Your task to perform on an android device: Go to Yahoo.com Image 0: 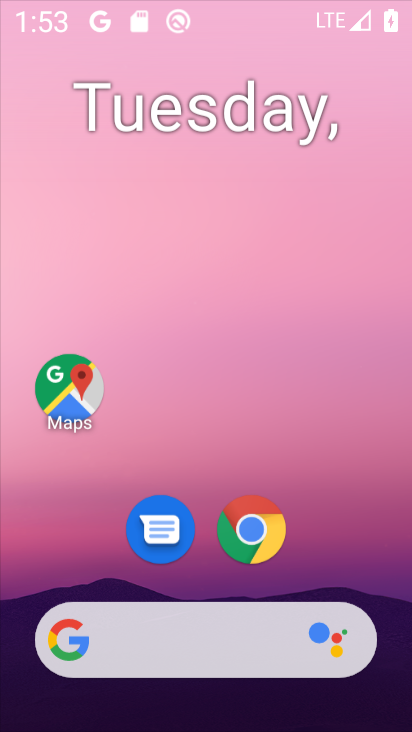
Step 0: click (264, 525)
Your task to perform on an android device: Go to Yahoo.com Image 1: 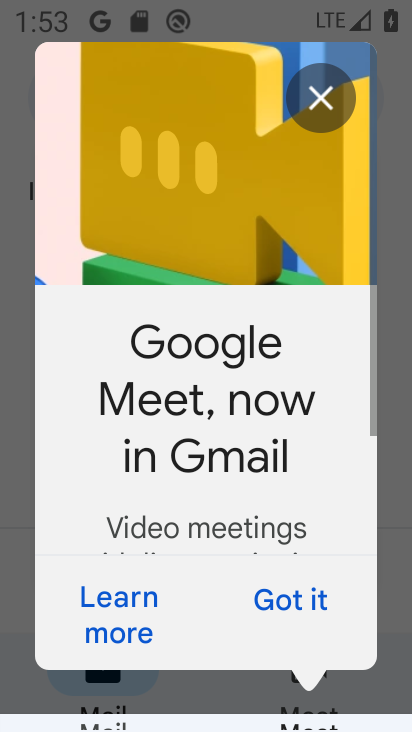
Step 1: press home button
Your task to perform on an android device: Go to Yahoo.com Image 2: 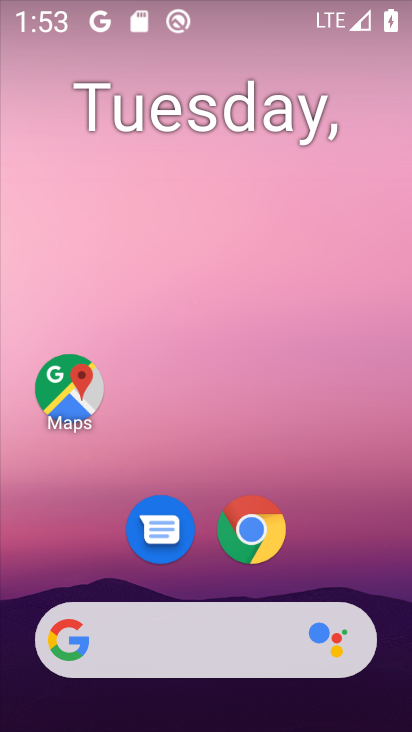
Step 2: click (260, 517)
Your task to perform on an android device: Go to Yahoo.com Image 3: 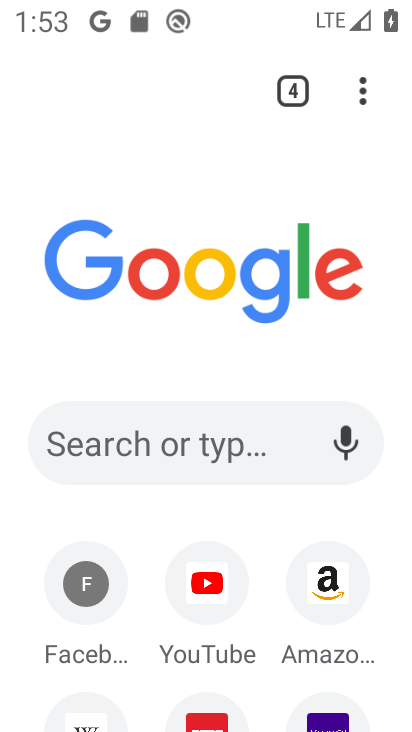
Step 3: click (225, 448)
Your task to perform on an android device: Go to Yahoo.com Image 4: 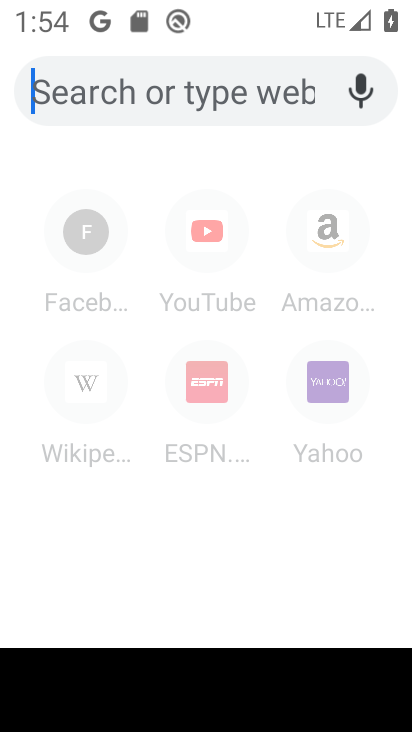
Step 4: type "yahoo.com"
Your task to perform on an android device: Go to Yahoo.com Image 5: 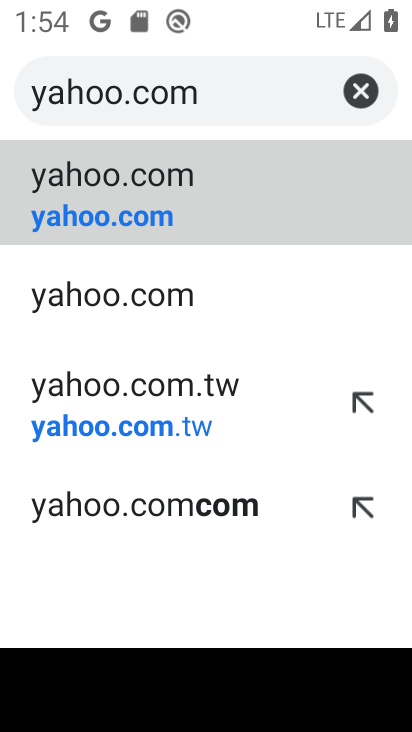
Step 5: click (86, 198)
Your task to perform on an android device: Go to Yahoo.com Image 6: 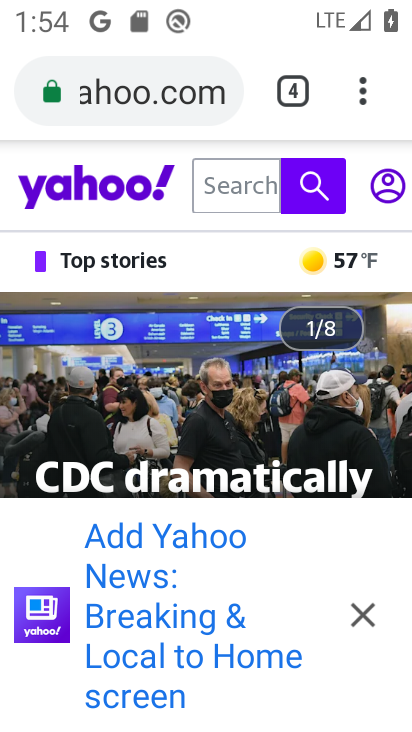
Step 6: task complete